Your task to perform on an android device: see sites visited before in the chrome app Image 0: 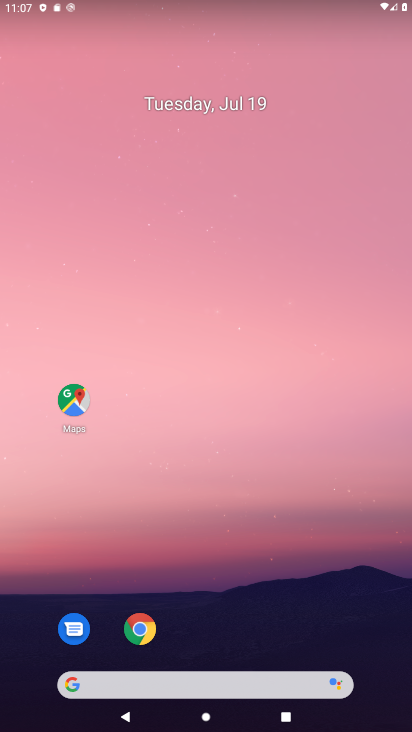
Step 0: drag from (352, 608) to (377, 116)
Your task to perform on an android device: see sites visited before in the chrome app Image 1: 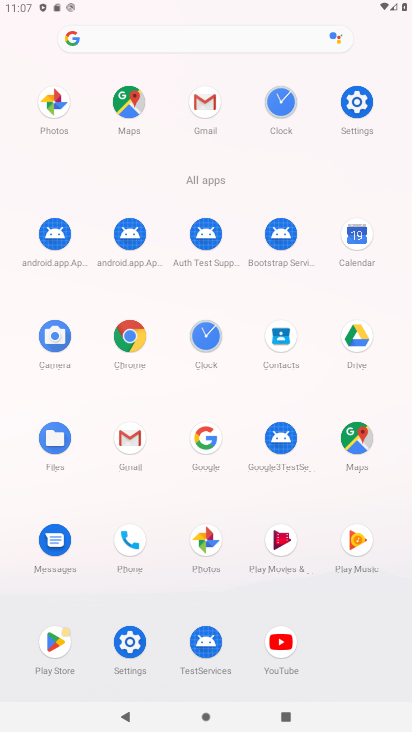
Step 1: click (139, 338)
Your task to perform on an android device: see sites visited before in the chrome app Image 2: 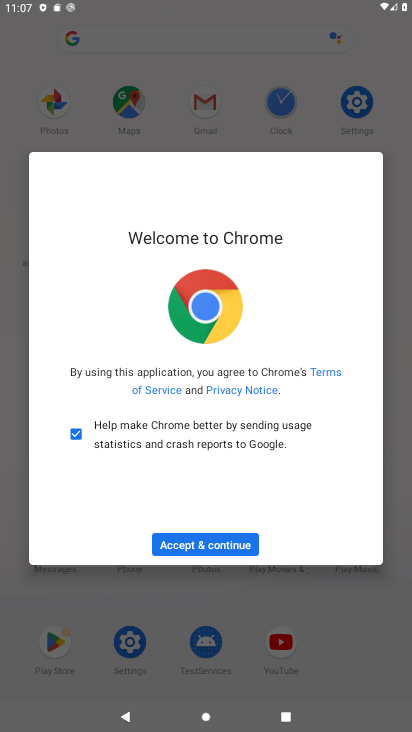
Step 2: click (230, 544)
Your task to perform on an android device: see sites visited before in the chrome app Image 3: 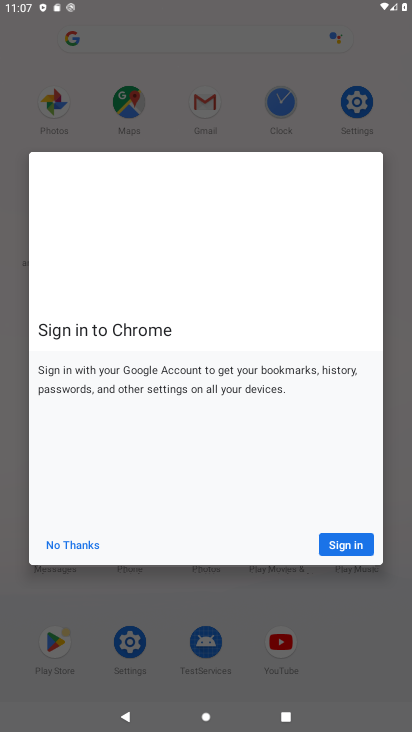
Step 3: click (351, 544)
Your task to perform on an android device: see sites visited before in the chrome app Image 4: 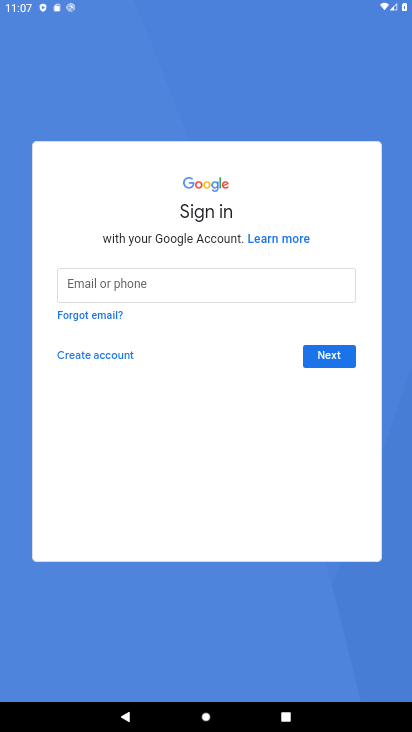
Step 4: task complete